Your task to perform on an android device: turn pop-ups on in chrome Image 0: 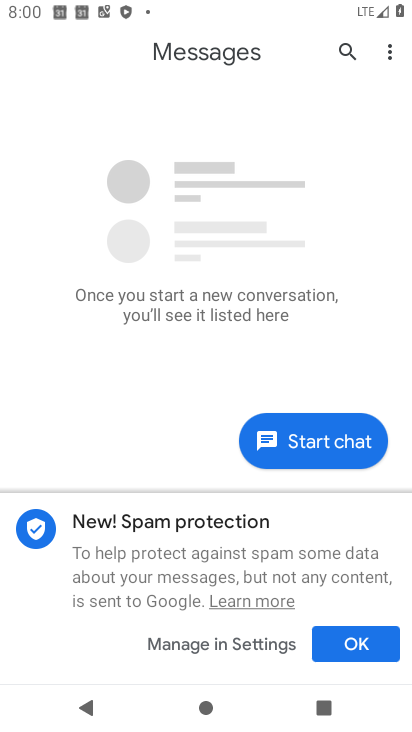
Step 0: press home button
Your task to perform on an android device: turn pop-ups on in chrome Image 1: 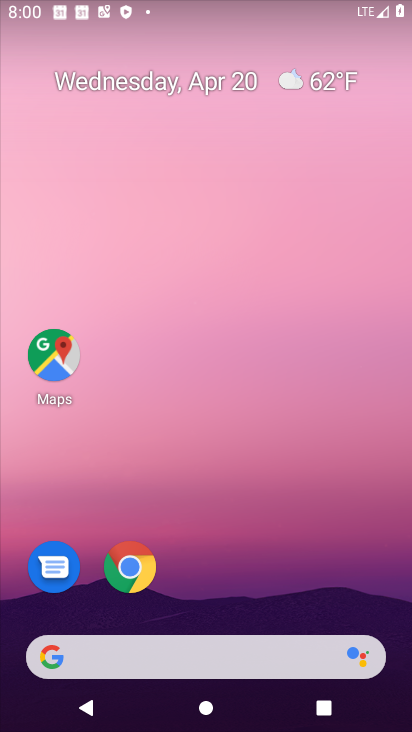
Step 1: drag from (293, 483) to (324, 105)
Your task to perform on an android device: turn pop-ups on in chrome Image 2: 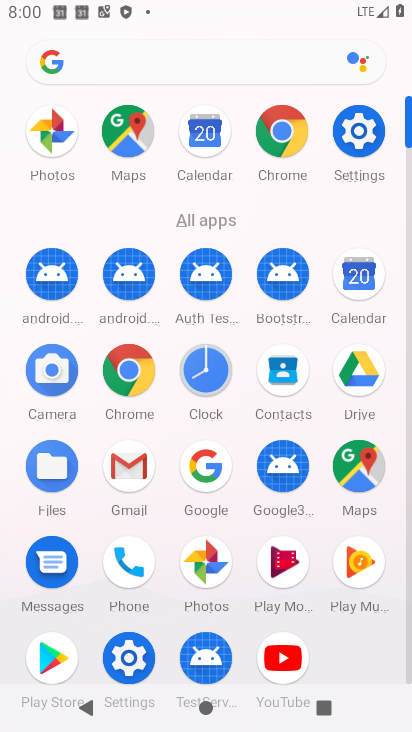
Step 2: click (279, 149)
Your task to perform on an android device: turn pop-ups on in chrome Image 3: 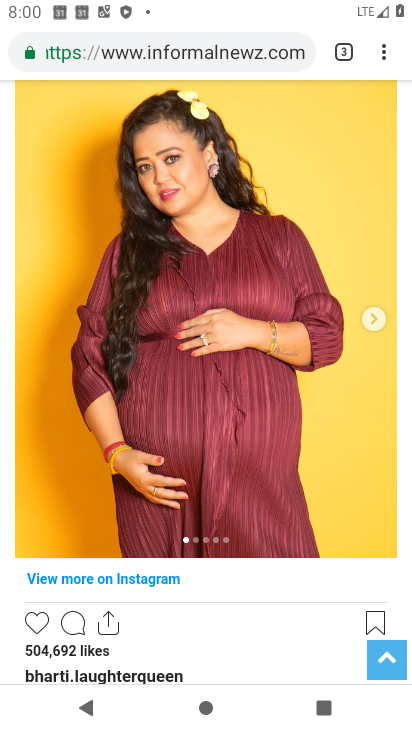
Step 3: drag from (386, 57) to (222, 577)
Your task to perform on an android device: turn pop-ups on in chrome Image 4: 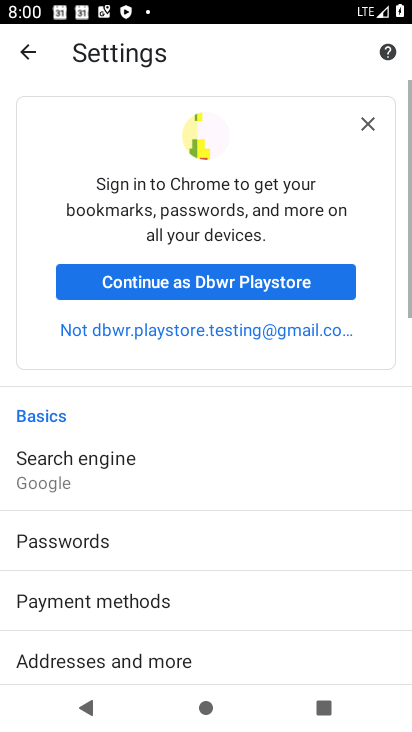
Step 4: drag from (200, 598) to (226, 308)
Your task to perform on an android device: turn pop-ups on in chrome Image 5: 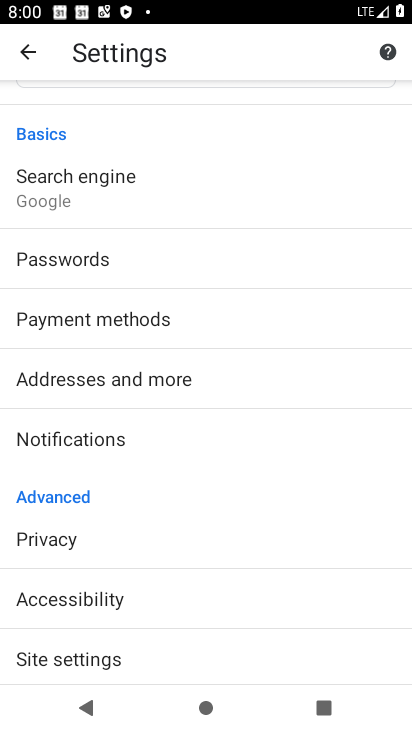
Step 5: drag from (199, 636) to (296, 241)
Your task to perform on an android device: turn pop-ups on in chrome Image 6: 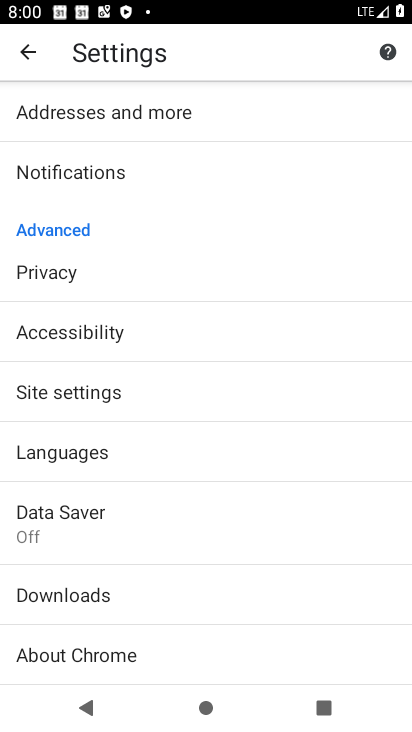
Step 6: click (86, 371)
Your task to perform on an android device: turn pop-ups on in chrome Image 7: 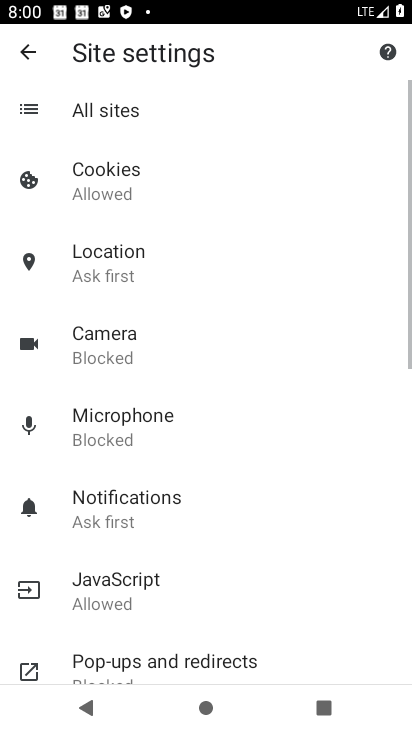
Step 7: drag from (184, 604) to (231, 259)
Your task to perform on an android device: turn pop-ups on in chrome Image 8: 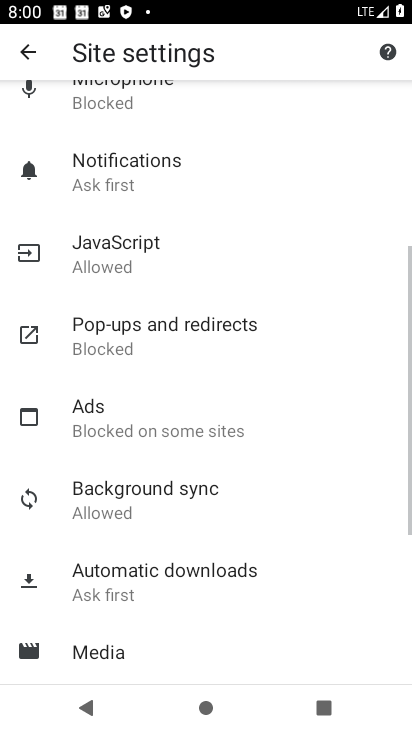
Step 8: drag from (158, 599) to (159, 270)
Your task to perform on an android device: turn pop-ups on in chrome Image 9: 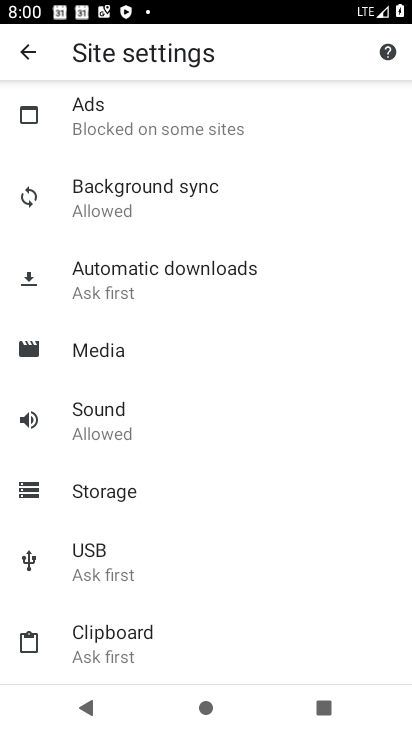
Step 9: drag from (229, 343) to (231, 545)
Your task to perform on an android device: turn pop-ups on in chrome Image 10: 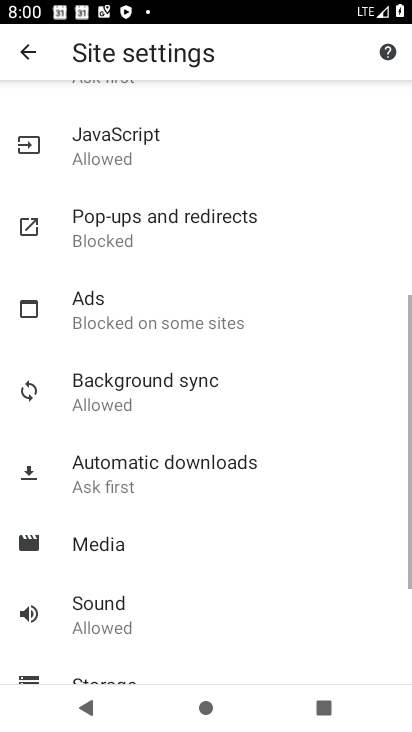
Step 10: click (129, 228)
Your task to perform on an android device: turn pop-ups on in chrome Image 11: 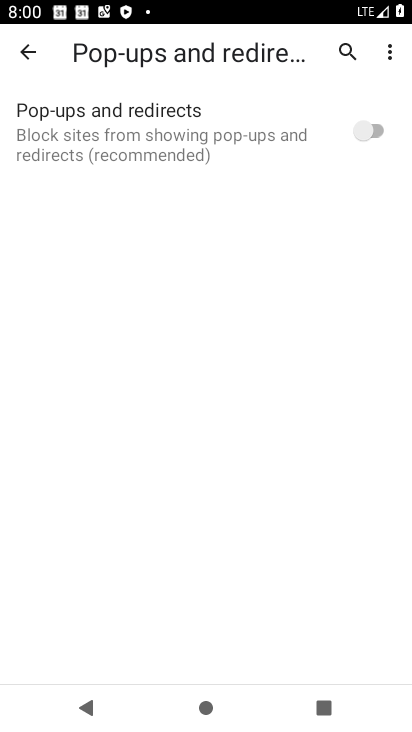
Step 11: click (362, 138)
Your task to perform on an android device: turn pop-ups on in chrome Image 12: 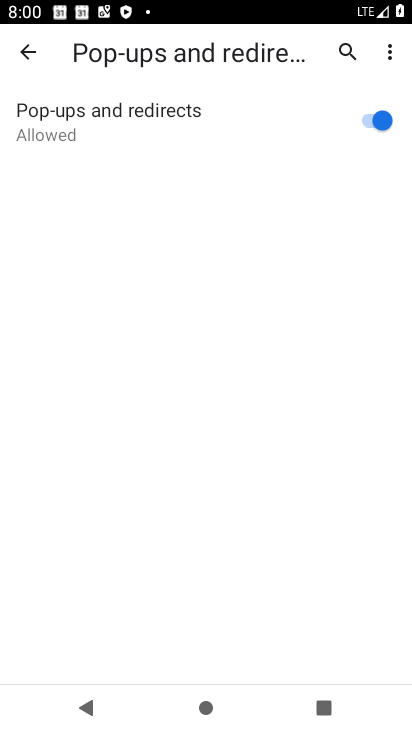
Step 12: task complete